Your task to perform on an android device: turn on wifi Image 0: 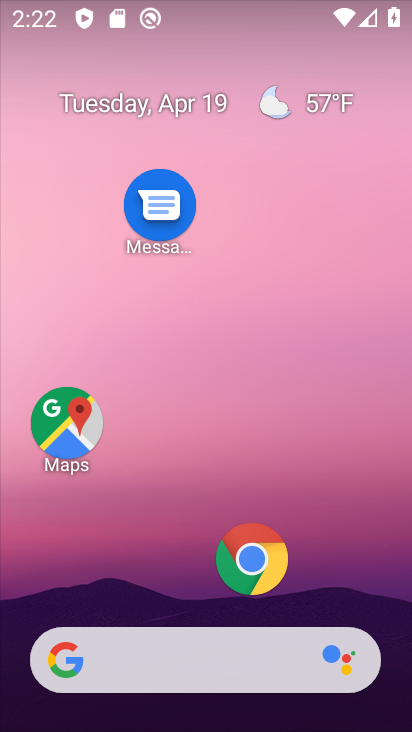
Step 0: drag from (179, 591) to (177, 115)
Your task to perform on an android device: turn on wifi Image 1: 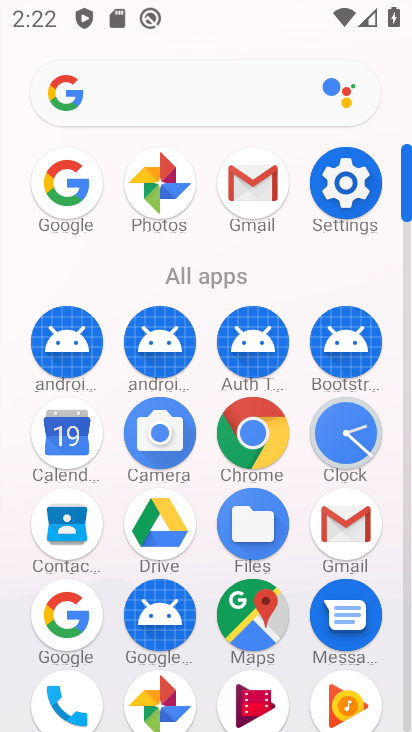
Step 1: click (345, 176)
Your task to perform on an android device: turn on wifi Image 2: 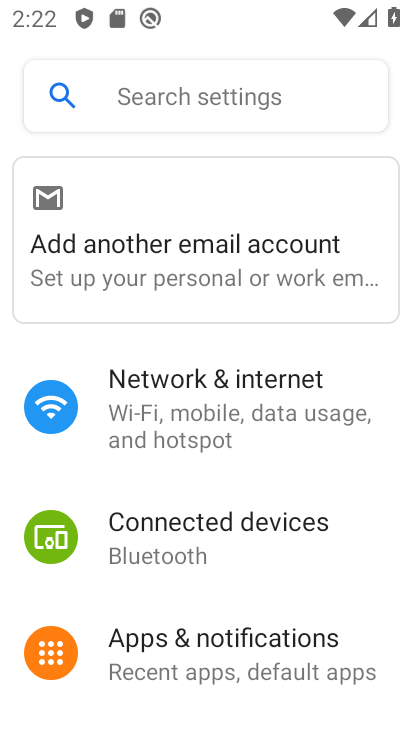
Step 2: click (191, 403)
Your task to perform on an android device: turn on wifi Image 3: 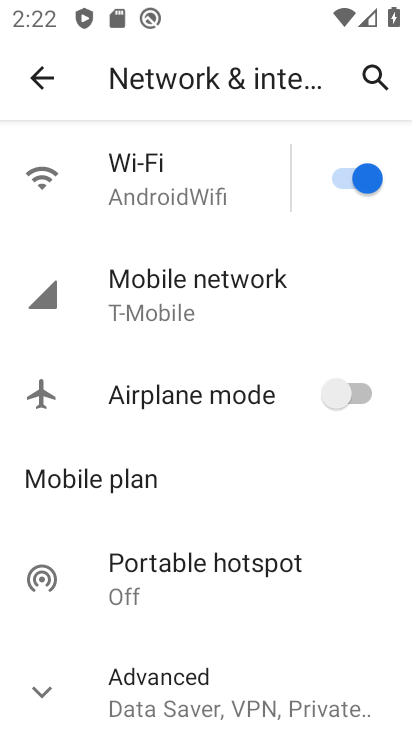
Step 3: task complete